Your task to perform on an android device: Go to display settings Image 0: 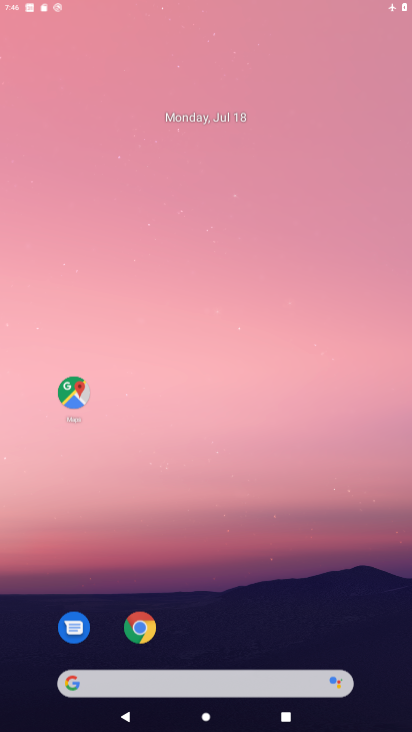
Step 0: click (236, 135)
Your task to perform on an android device: Go to display settings Image 1: 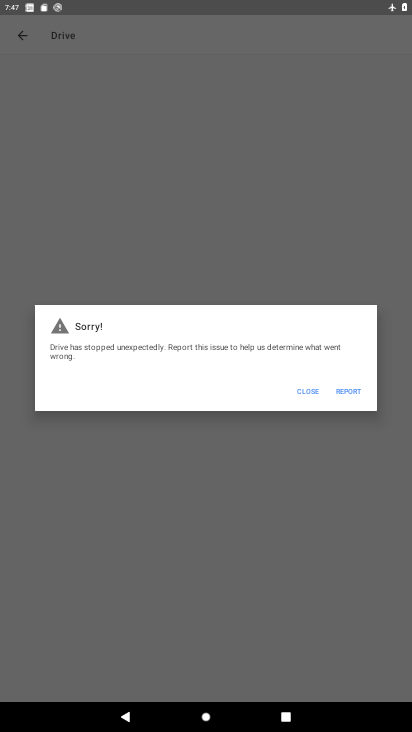
Step 1: press home button
Your task to perform on an android device: Go to display settings Image 2: 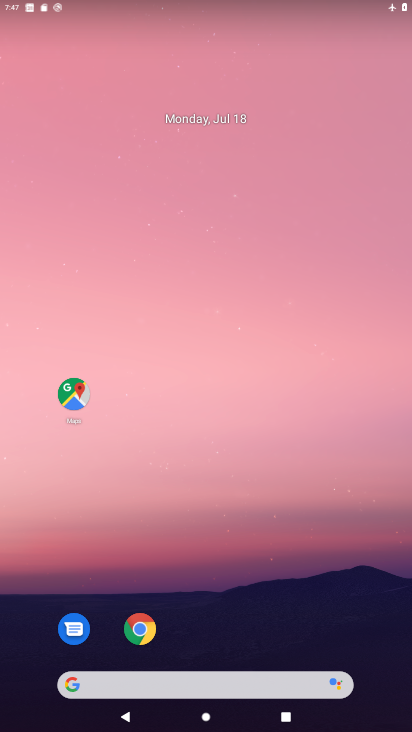
Step 2: drag from (89, 532) to (280, 30)
Your task to perform on an android device: Go to display settings Image 3: 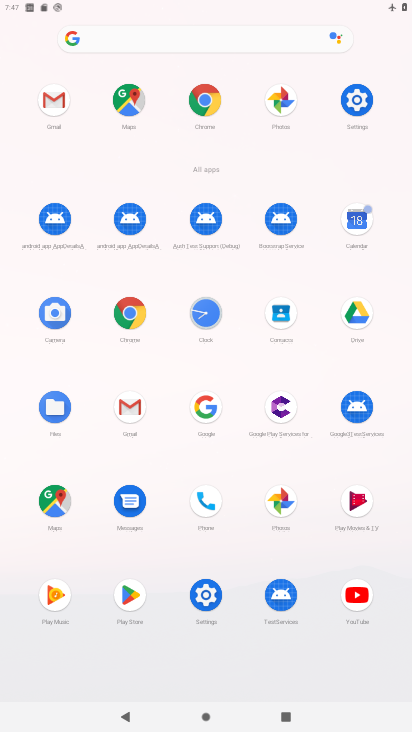
Step 3: click (354, 86)
Your task to perform on an android device: Go to display settings Image 4: 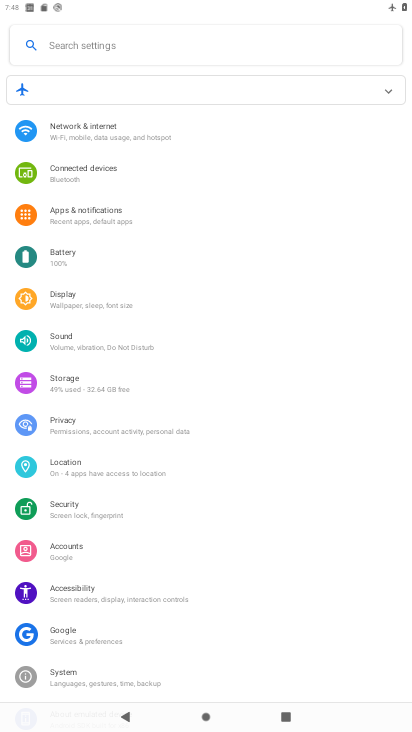
Step 4: click (86, 304)
Your task to perform on an android device: Go to display settings Image 5: 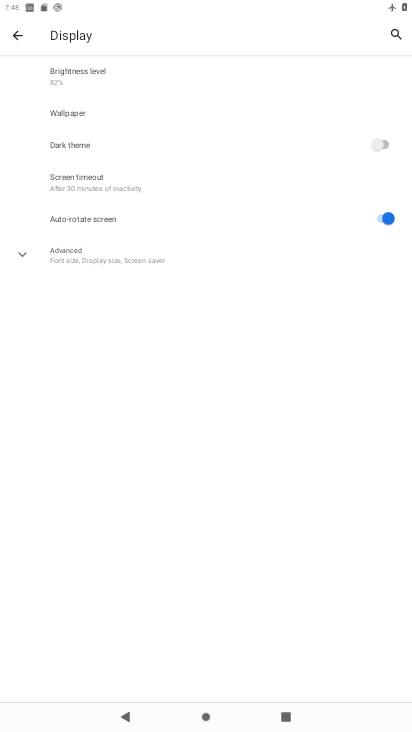
Step 5: task complete